Your task to perform on an android device: Go to Reddit.com Image 0: 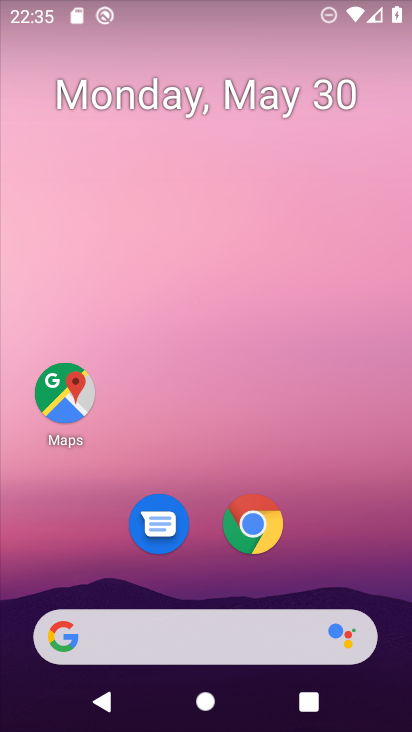
Step 0: click (262, 643)
Your task to perform on an android device: Go to Reddit.com Image 1: 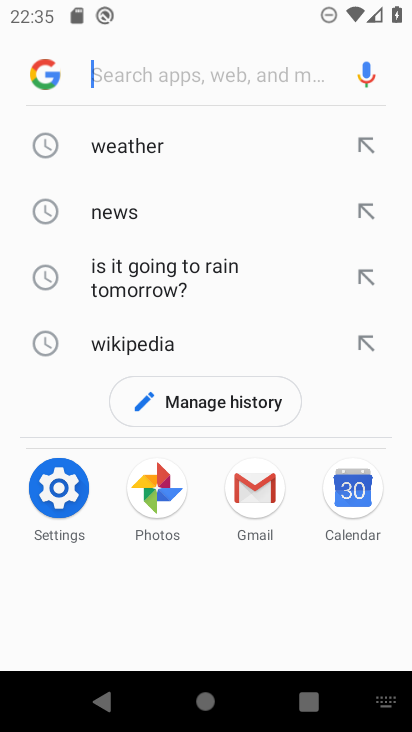
Step 1: type "reddit.com"
Your task to perform on an android device: Go to Reddit.com Image 2: 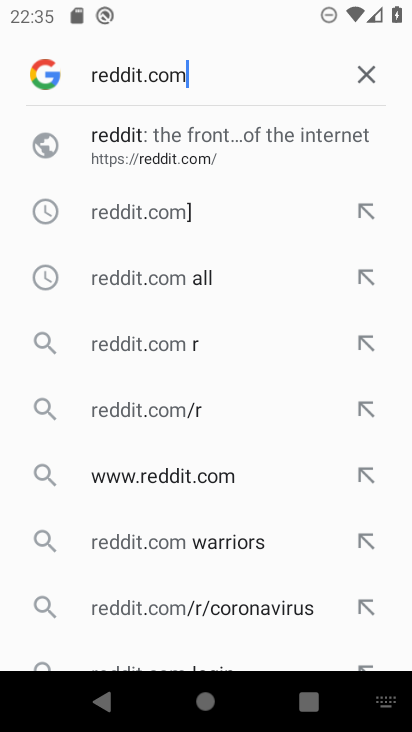
Step 2: click (107, 145)
Your task to perform on an android device: Go to Reddit.com Image 3: 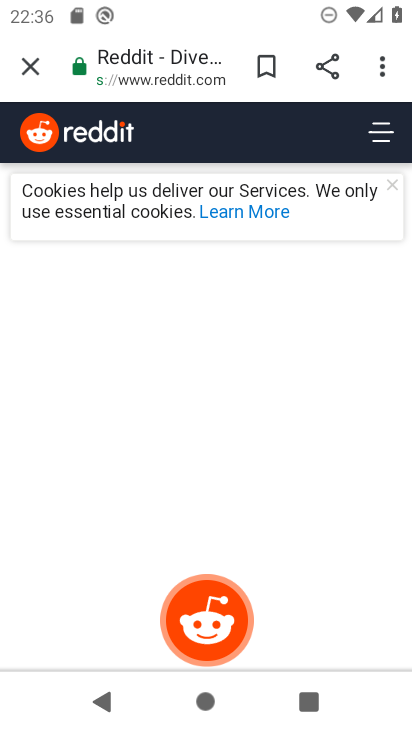
Step 3: task complete